Your task to perform on an android device: Open wifi settings Image 0: 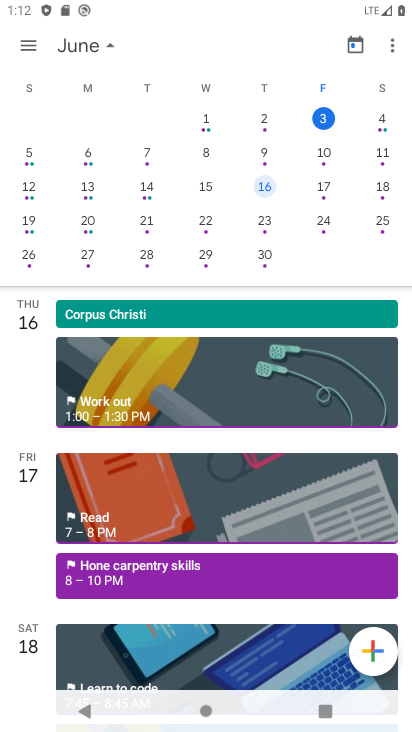
Step 0: drag from (209, 620) to (275, 226)
Your task to perform on an android device: Open wifi settings Image 1: 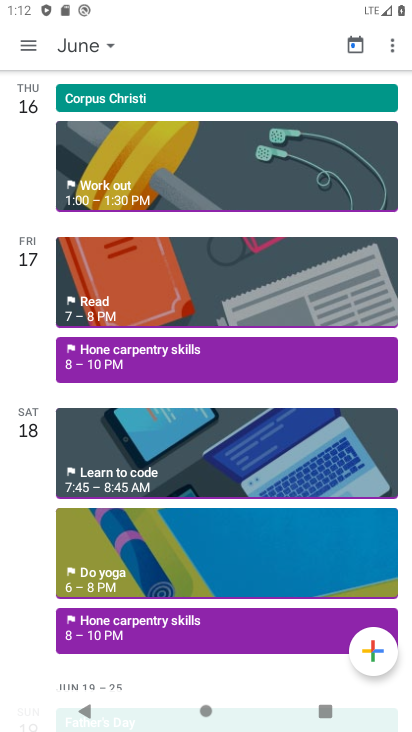
Step 1: press home button
Your task to perform on an android device: Open wifi settings Image 2: 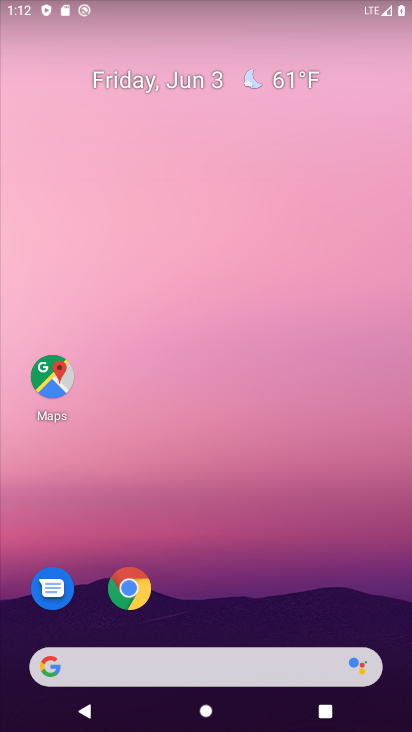
Step 2: drag from (232, 612) to (231, 94)
Your task to perform on an android device: Open wifi settings Image 3: 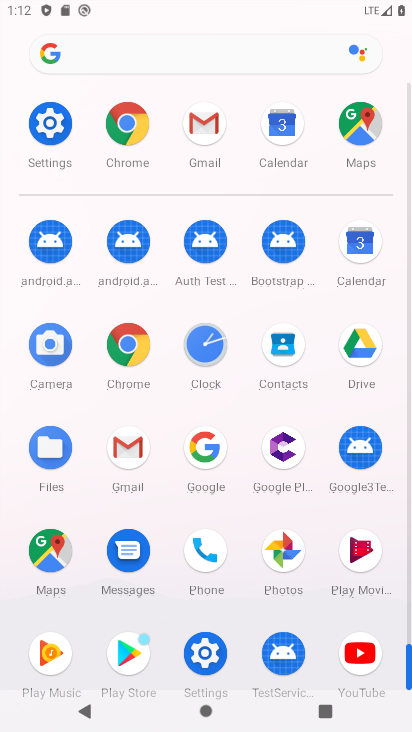
Step 3: drag from (240, 192) to (251, 78)
Your task to perform on an android device: Open wifi settings Image 4: 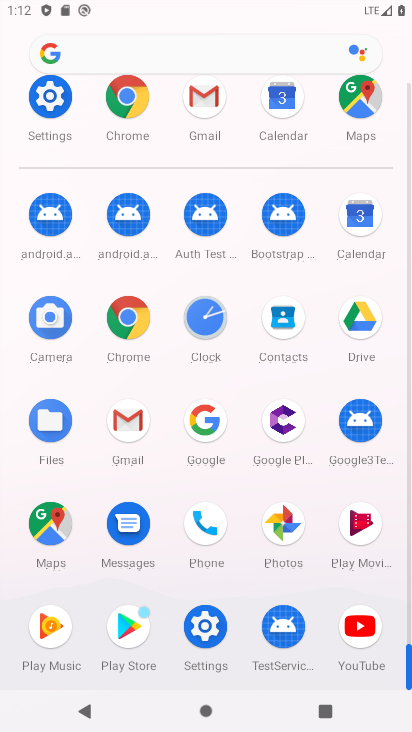
Step 4: click (217, 628)
Your task to perform on an android device: Open wifi settings Image 5: 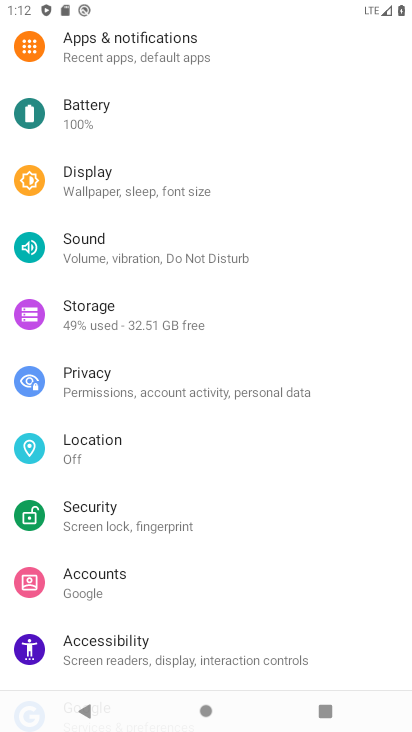
Step 5: drag from (235, 159) to (298, 617)
Your task to perform on an android device: Open wifi settings Image 6: 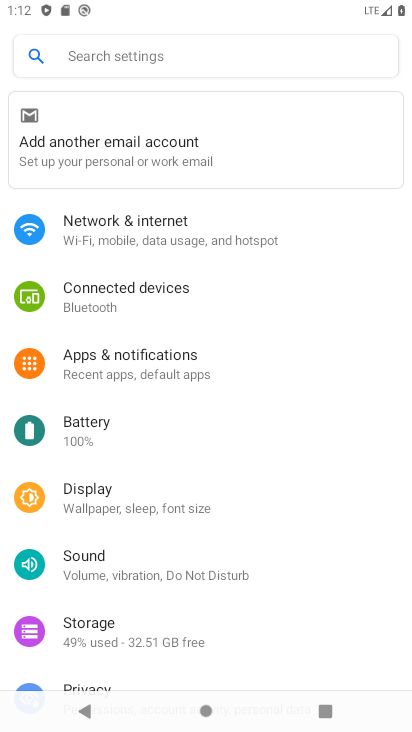
Step 6: click (188, 240)
Your task to perform on an android device: Open wifi settings Image 7: 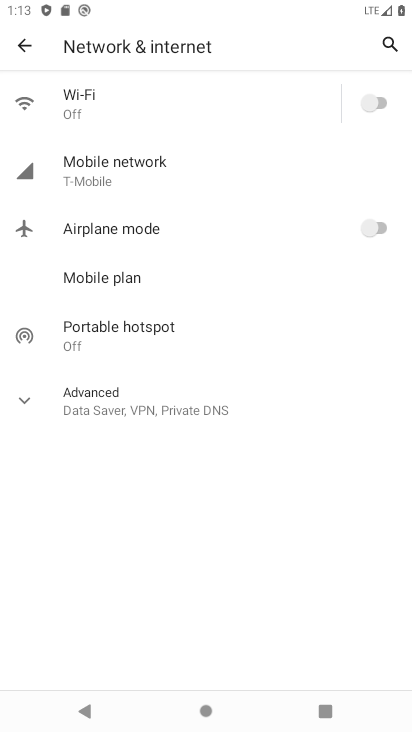
Step 7: click (192, 194)
Your task to perform on an android device: Open wifi settings Image 8: 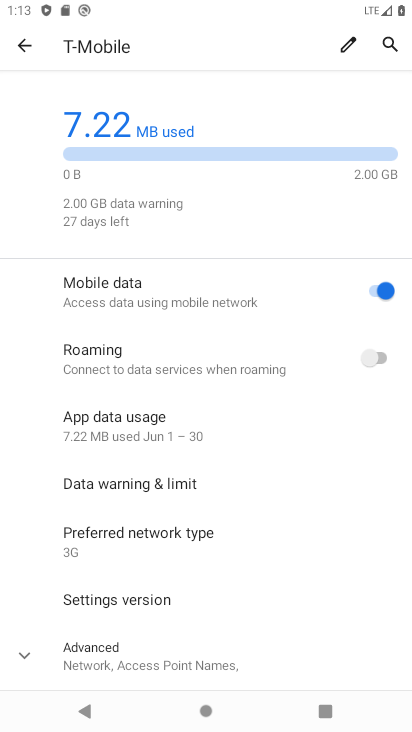
Step 8: press back button
Your task to perform on an android device: Open wifi settings Image 9: 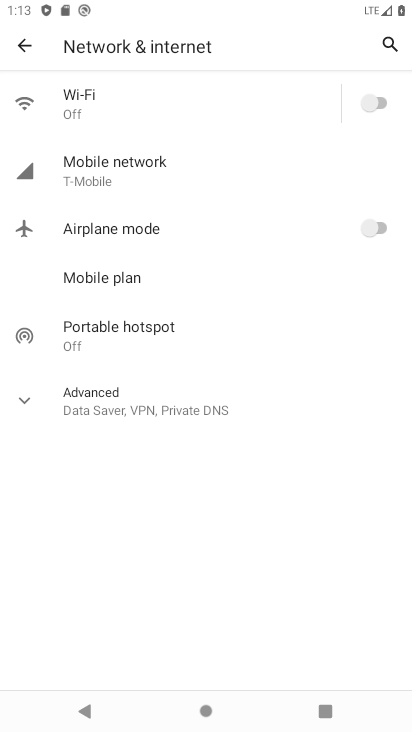
Step 9: click (125, 100)
Your task to perform on an android device: Open wifi settings Image 10: 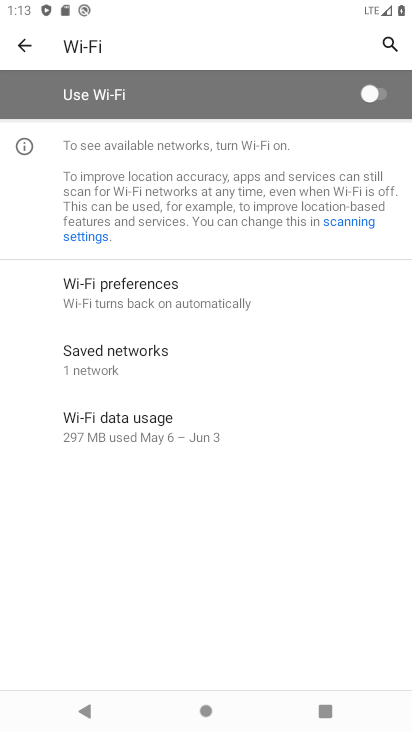
Step 10: task complete